Your task to perform on an android device: turn off sleep mode Image 0: 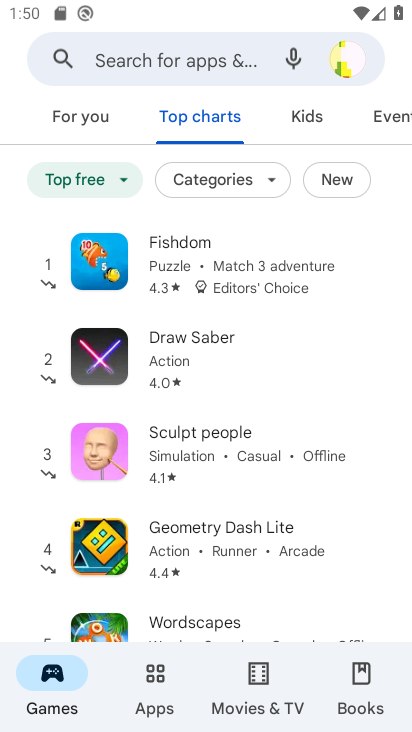
Step 0: press home button
Your task to perform on an android device: turn off sleep mode Image 1: 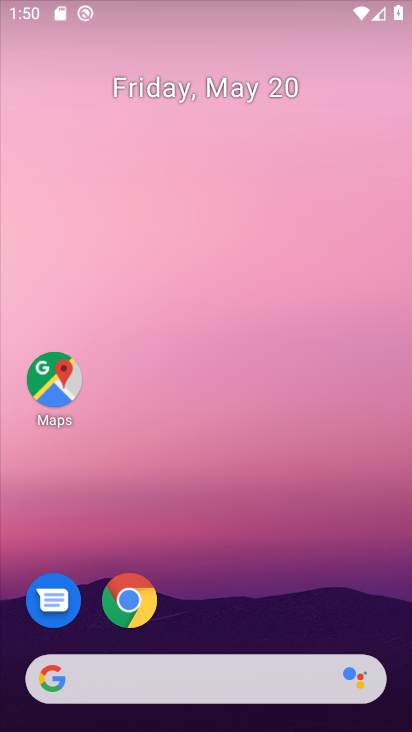
Step 1: drag from (247, 523) to (129, 42)
Your task to perform on an android device: turn off sleep mode Image 2: 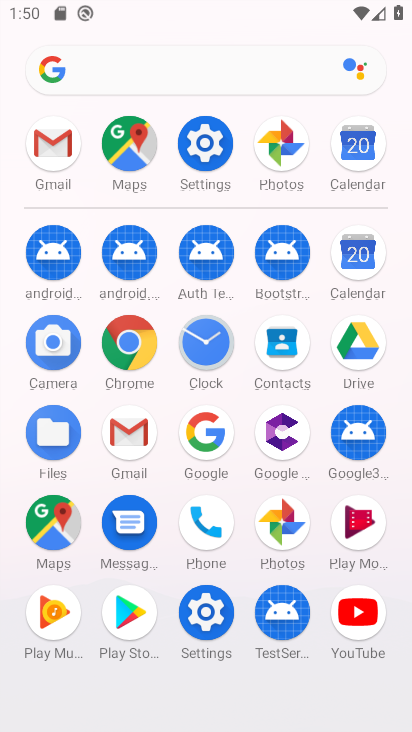
Step 2: click (215, 130)
Your task to perform on an android device: turn off sleep mode Image 3: 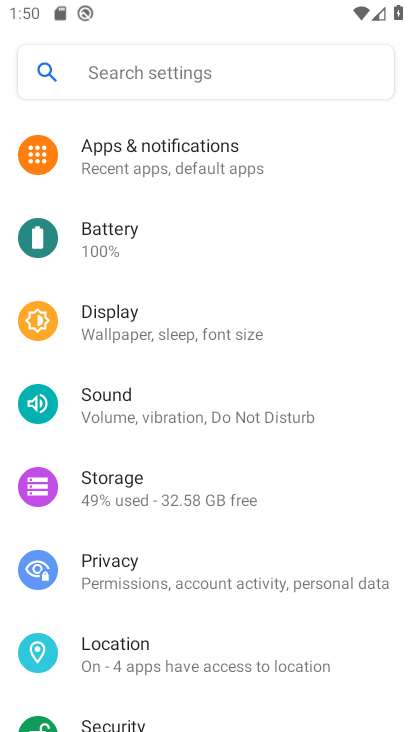
Step 3: click (173, 329)
Your task to perform on an android device: turn off sleep mode Image 4: 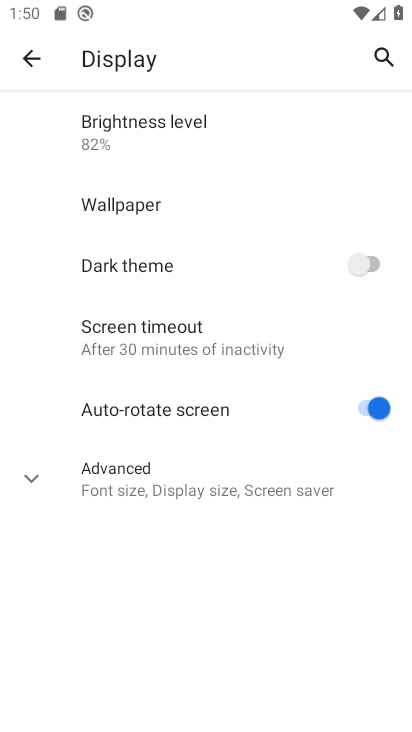
Step 4: click (208, 486)
Your task to perform on an android device: turn off sleep mode Image 5: 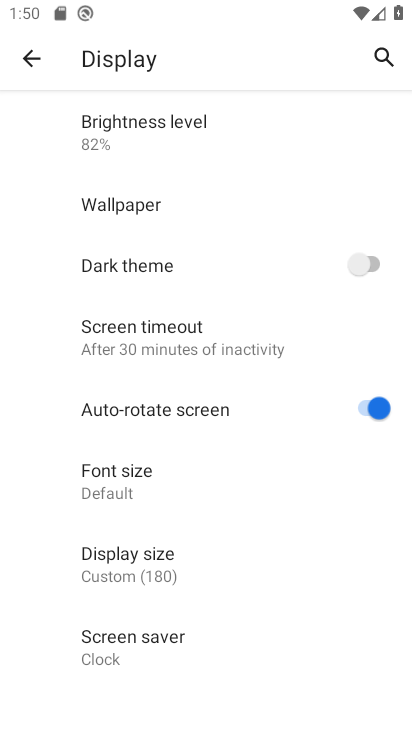
Step 5: task complete